Your task to perform on an android device: Clear the shopping cart on walmart. Search for asus rog on walmart, select the first entry, add it to the cart, then select checkout. Image 0: 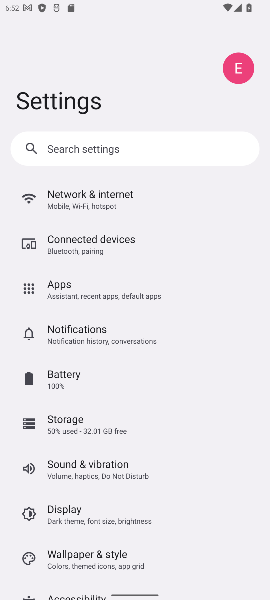
Step 0: press home button
Your task to perform on an android device: Clear the shopping cart on walmart. Search for asus rog on walmart, select the first entry, add it to the cart, then select checkout. Image 1: 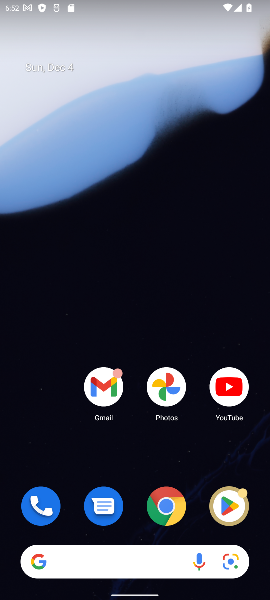
Step 1: click (177, 502)
Your task to perform on an android device: Clear the shopping cart on walmart. Search for asus rog on walmart, select the first entry, add it to the cart, then select checkout. Image 2: 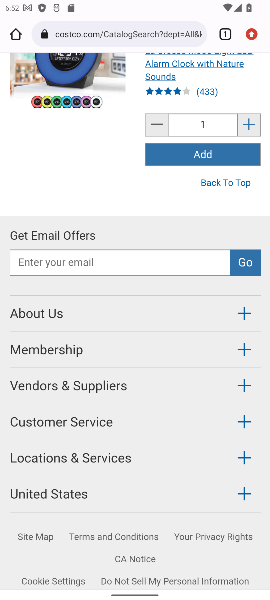
Step 2: click (99, 28)
Your task to perform on an android device: Clear the shopping cart on walmart. Search for asus rog on walmart, select the first entry, add it to the cart, then select checkout. Image 3: 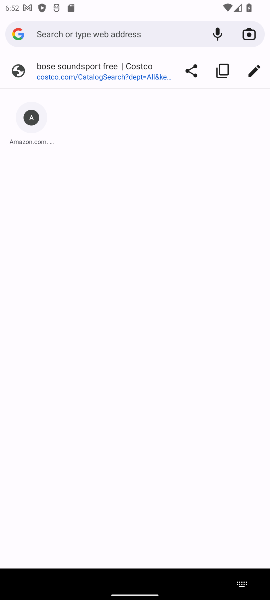
Step 3: type "walmart"
Your task to perform on an android device: Clear the shopping cart on walmart. Search for asus rog on walmart, select the first entry, add it to the cart, then select checkout. Image 4: 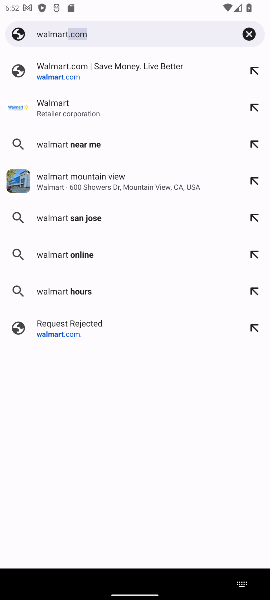
Step 4: click (68, 119)
Your task to perform on an android device: Clear the shopping cart on walmart. Search for asus rog on walmart, select the first entry, add it to the cart, then select checkout. Image 5: 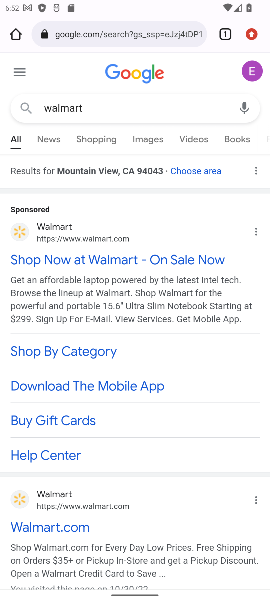
Step 5: click (58, 528)
Your task to perform on an android device: Clear the shopping cart on walmart. Search for asus rog on walmart, select the first entry, add it to the cart, then select checkout. Image 6: 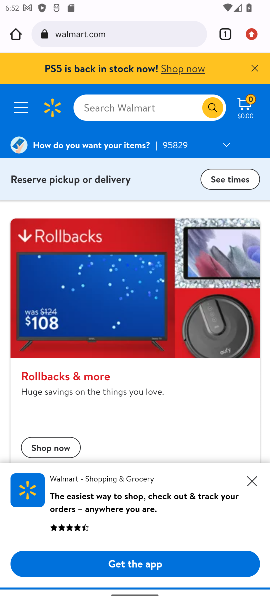
Step 6: click (245, 106)
Your task to perform on an android device: Clear the shopping cart on walmart. Search for asus rog on walmart, select the first entry, add it to the cart, then select checkout. Image 7: 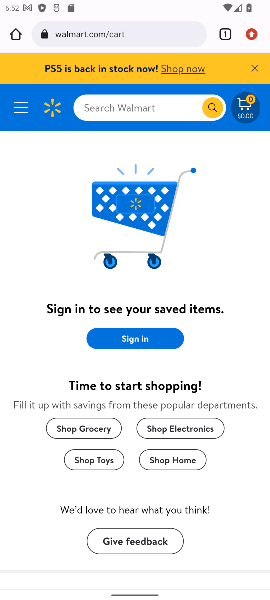
Step 7: click (139, 110)
Your task to perform on an android device: Clear the shopping cart on walmart. Search for asus rog on walmart, select the first entry, add it to the cart, then select checkout. Image 8: 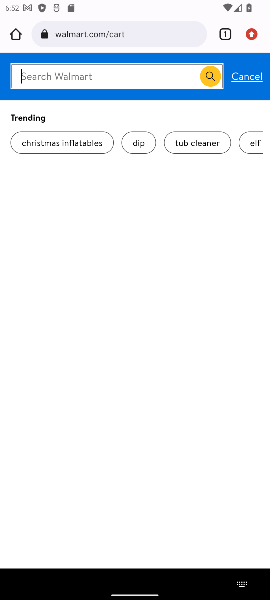
Step 8: type "asus rog "
Your task to perform on an android device: Clear the shopping cart on walmart. Search for asus rog on walmart, select the first entry, add it to the cart, then select checkout. Image 9: 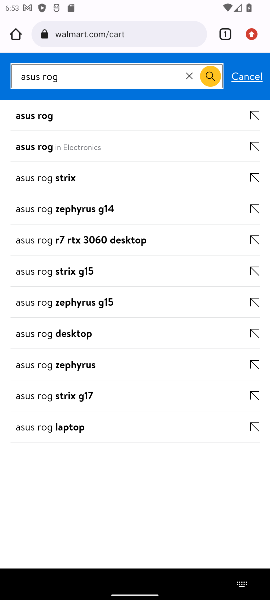
Step 9: click (212, 73)
Your task to perform on an android device: Clear the shopping cart on walmart. Search for asus rog on walmart, select the first entry, add it to the cart, then select checkout. Image 10: 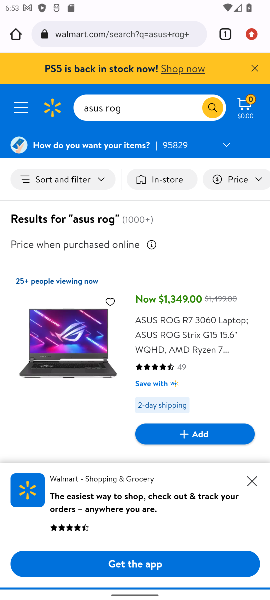
Step 10: click (192, 433)
Your task to perform on an android device: Clear the shopping cart on walmart. Search for asus rog on walmart, select the first entry, add it to the cart, then select checkout. Image 11: 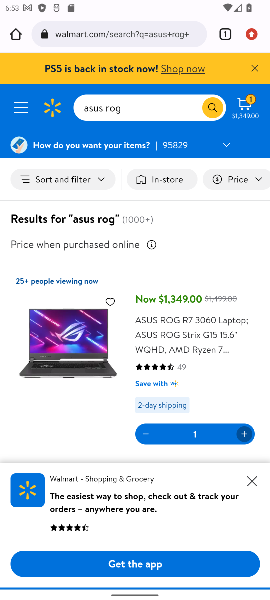
Step 11: click (245, 107)
Your task to perform on an android device: Clear the shopping cart on walmart. Search for asus rog on walmart, select the first entry, add it to the cart, then select checkout. Image 12: 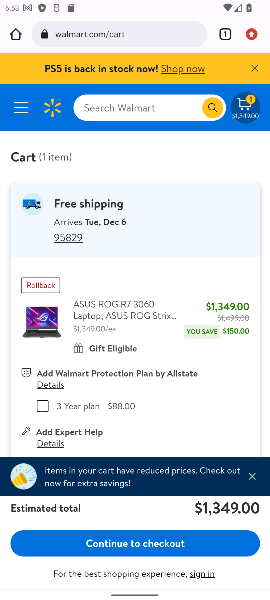
Step 12: click (88, 541)
Your task to perform on an android device: Clear the shopping cart on walmart. Search for asus rog on walmart, select the first entry, add it to the cart, then select checkout. Image 13: 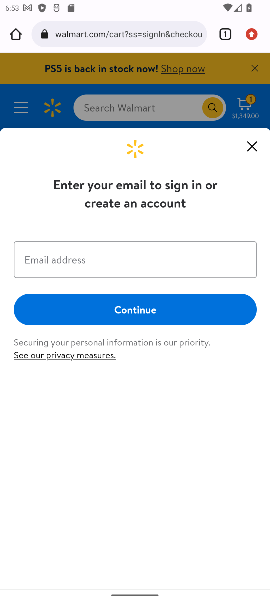
Step 13: task complete